Your task to perform on an android device: Open Google Chrome and open the bookmarks view Image 0: 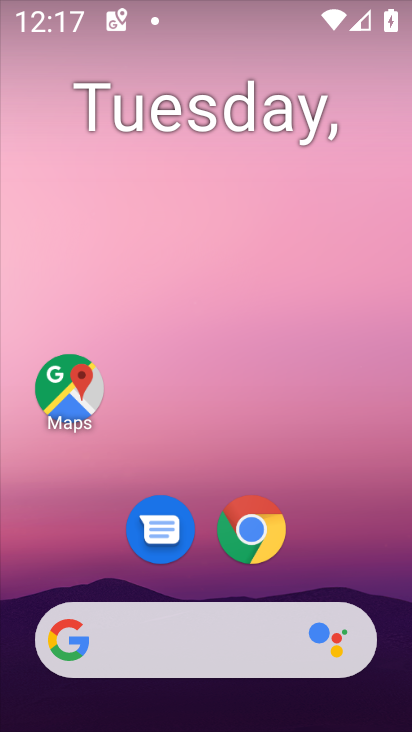
Step 0: click (247, 531)
Your task to perform on an android device: Open Google Chrome and open the bookmarks view Image 1: 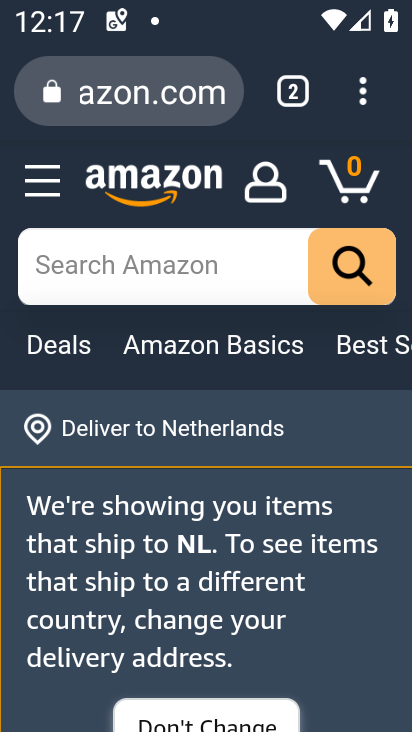
Step 1: task complete